Your task to perform on an android device: toggle translation in the chrome app Image 0: 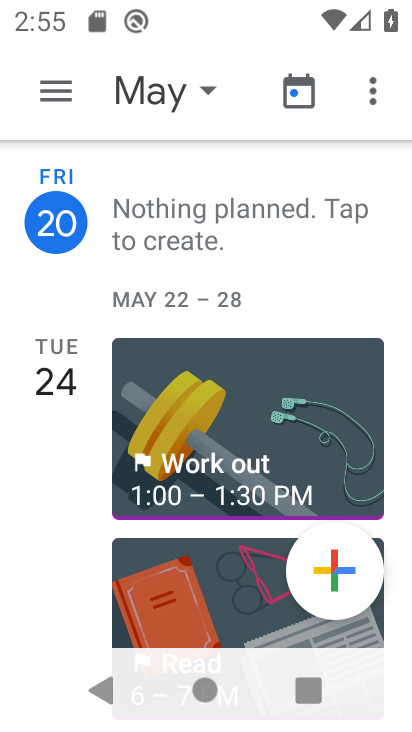
Step 0: press home button
Your task to perform on an android device: toggle translation in the chrome app Image 1: 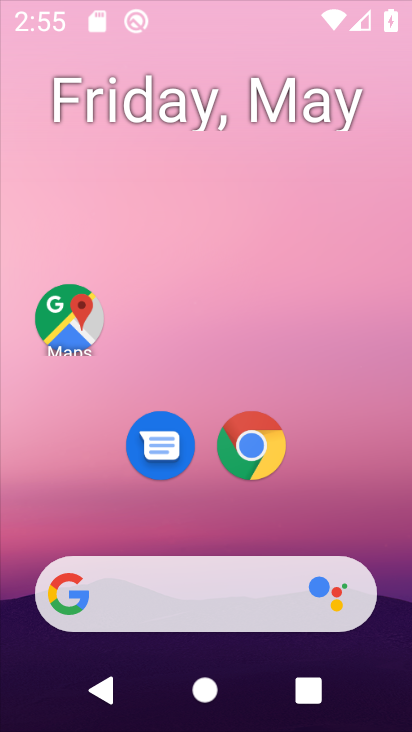
Step 1: drag from (197, 578) to (288, 349)
Your task to perform on an android device: toggle translation in the chrome app Image 2: 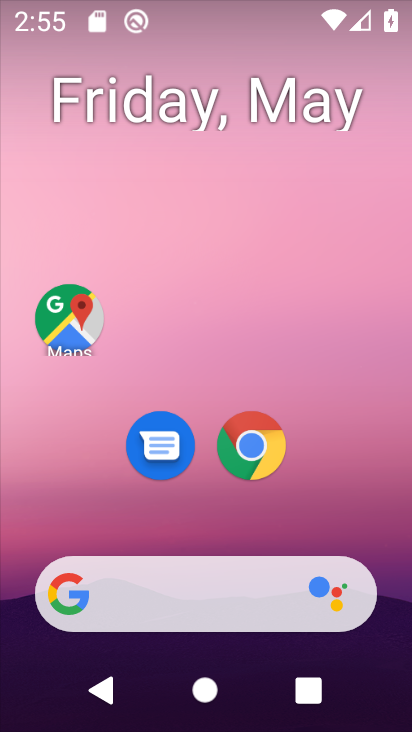
Step 2: click (252, 431)
Your task to perform on an android device: toggle translation in the chrome app Image 3: 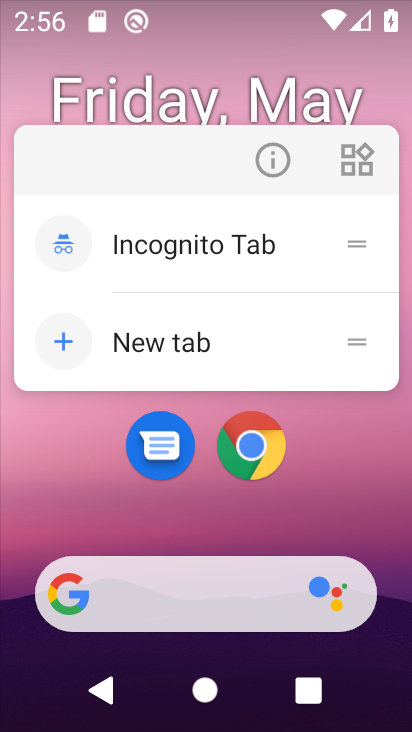
Step 3: click (275, 176)
Your task to perform on an android device: toggle translation in the chrome app Image 4: 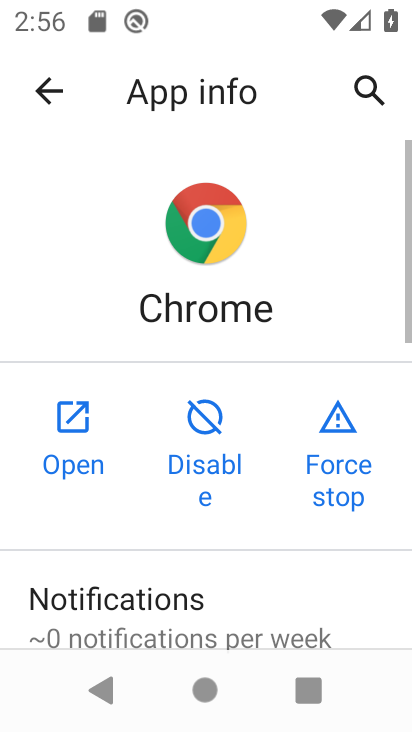
Step 4: click (75, 445)
Your task to perform on an android device: toggle translation in the chrome app Image 5: 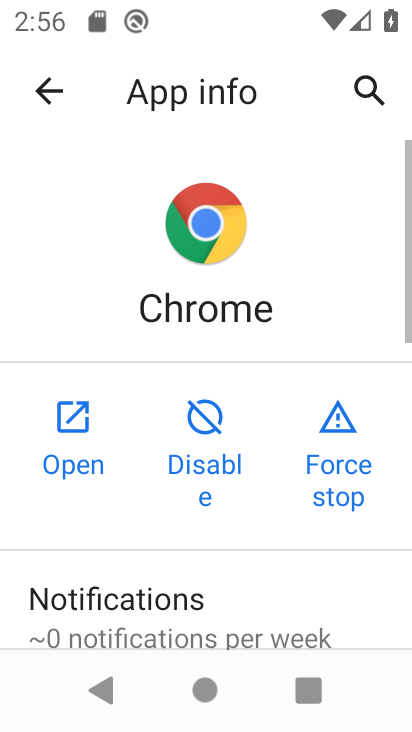
Step 5: click (75, 445)
Your task to perform on an android device: toggle translation in the chrome app Image 6: 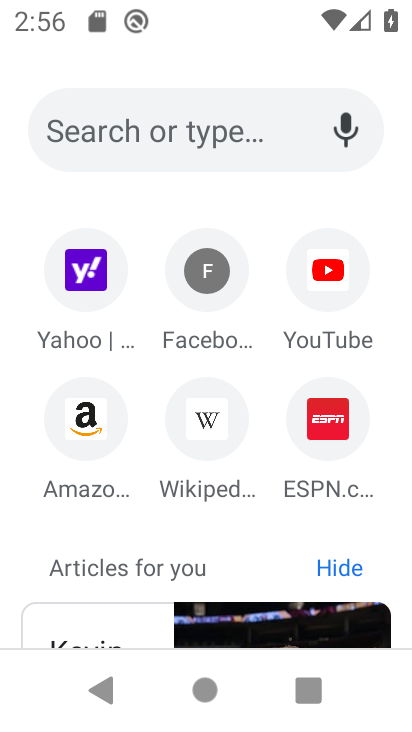
Step 6: drag from (245, 486) to (280, 181)
Your task to perform on an android device: toggle translation in the chrome app Image 7: 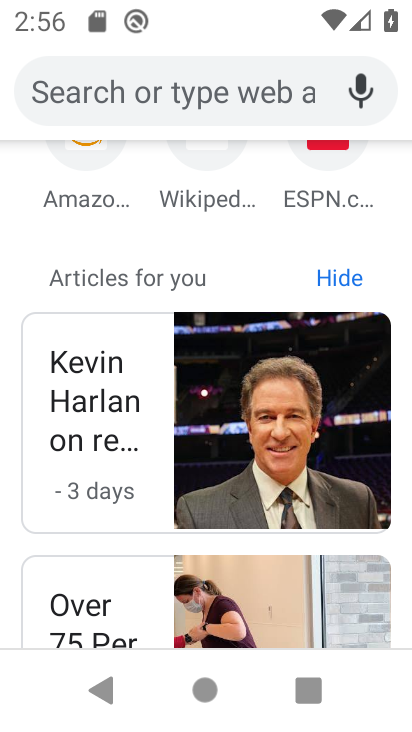
Step 7: drag from (261, 221) to (258, 680)
Your task to perform on an android device: toggle translation in the chrome app Image 8: 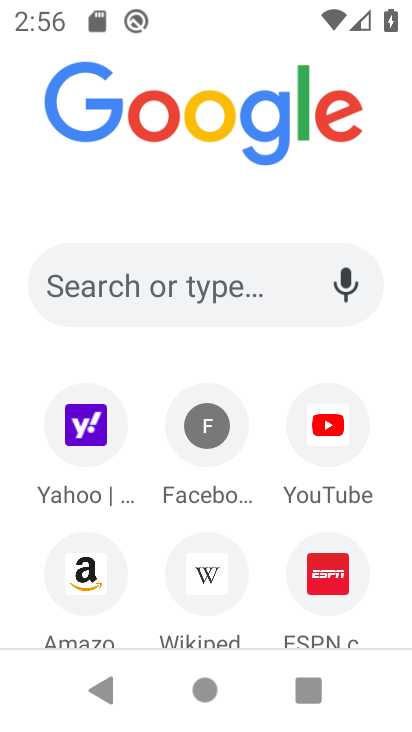
Step 8: drag from (245, 190) to (243, 253)
Your task to perform on an android device: toggle translation in the chrome app Image 9: 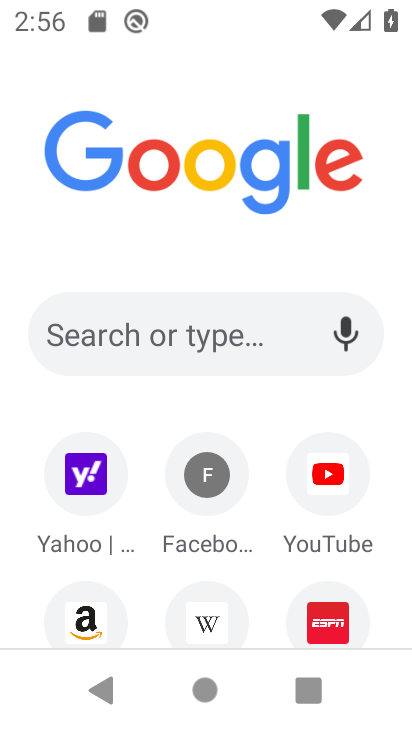
Step 9: click (372, 70)
Your task to perform on an android device: toggle translation in the chrome app Image 10: 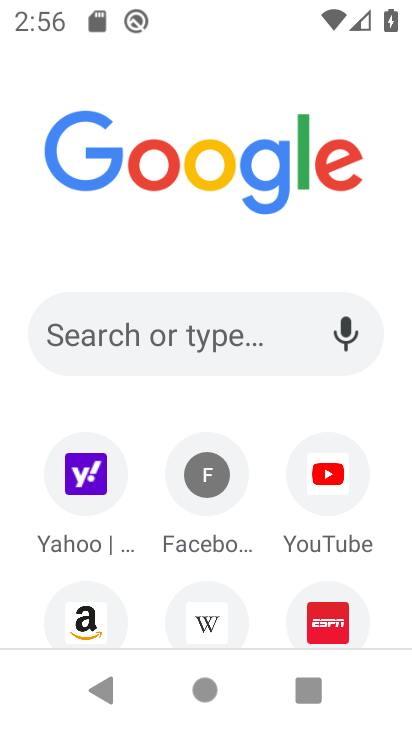
Step 10: click (375, 83)
Your task to perform on an android device: toggle translation in the chrome app Image 11: 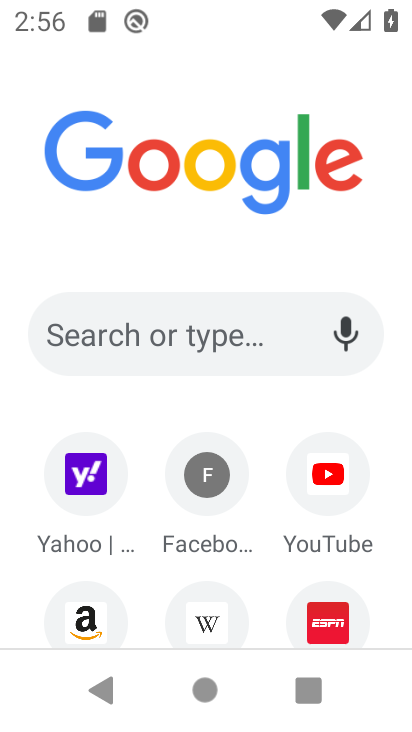
Step 11: drag from (196, 224) to (179, 499)
Your task to perform on an android device: toggle translation in the chrome app Image 12: 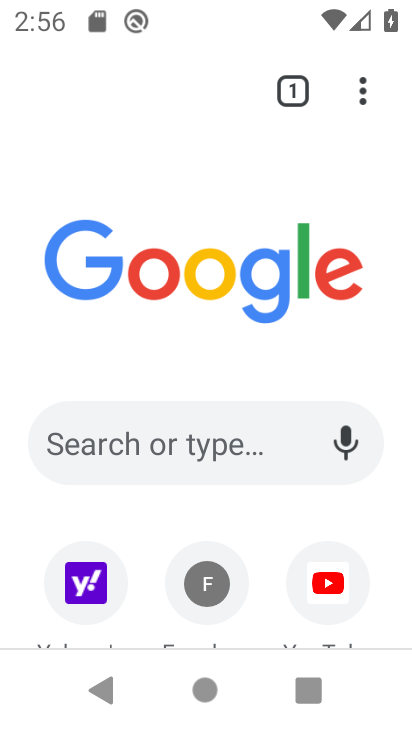
Step 12: click (373, 99)
Your task to perform on an android device: toggle translation in the chrome app Image 13: 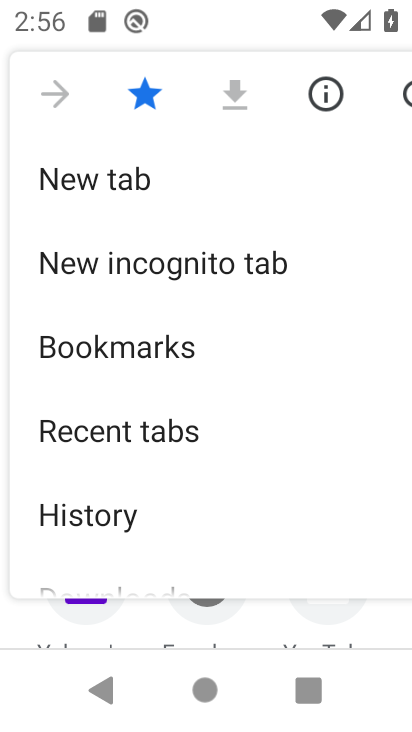
Step 13: drag from (129, 526) to (239, 158)
Your task to perform on an android device: toggle translation in the chrome app Image 14: 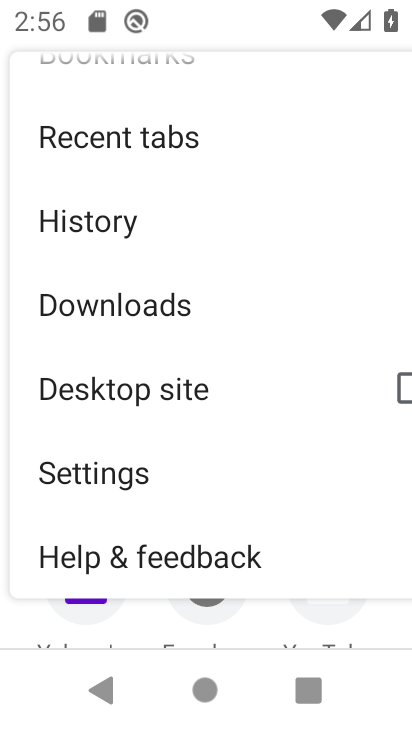
Step 14: click (93, 482)
Your task to perform on an android device: toggle translation in the chrome app Image 15: 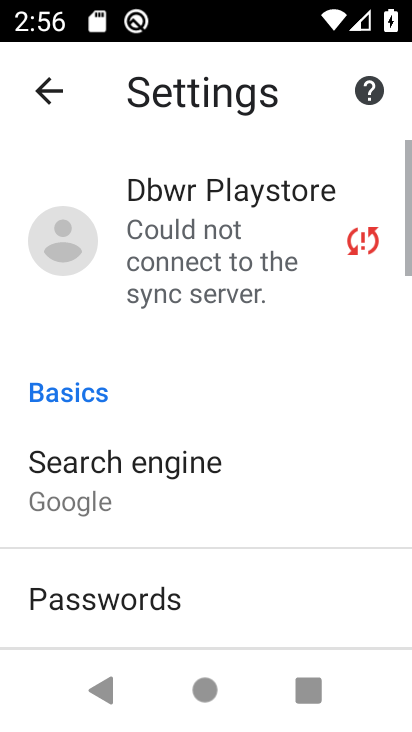
Step 15: drag from (146, 473) to (251, 215)
Your task to perform on an android device: toggle translation in the chrome app Image 16: 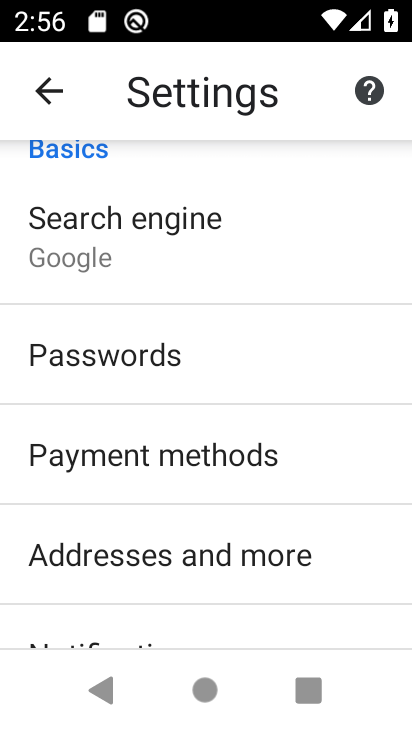
Step 16: drag from (136, 536) to (220, 226)
Your task to perform on an android device: toggle translation in the chrome app Image 17: 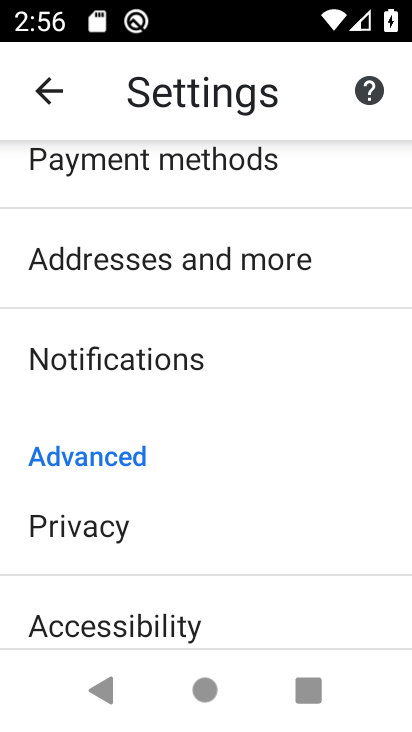
Step 17: drag from (153, 527) to (304, 202)
Your task to perform on an android device: toggle translation in the chrome app Image 18: 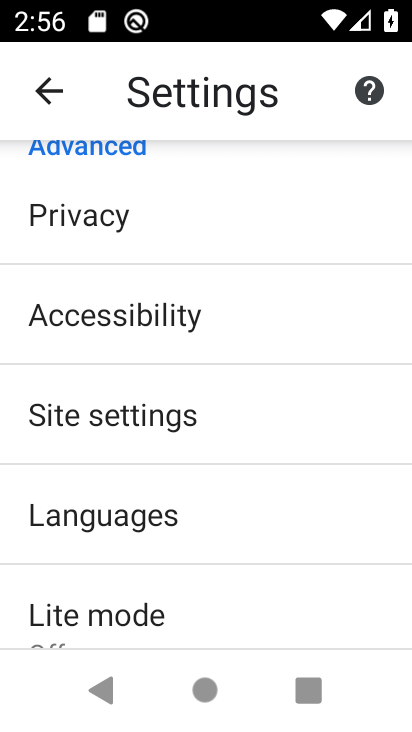
Step 18: drag from (138, 563) to (220, 359)
Your task to perform on an android device: toggle translation in the chrome app Image 19: 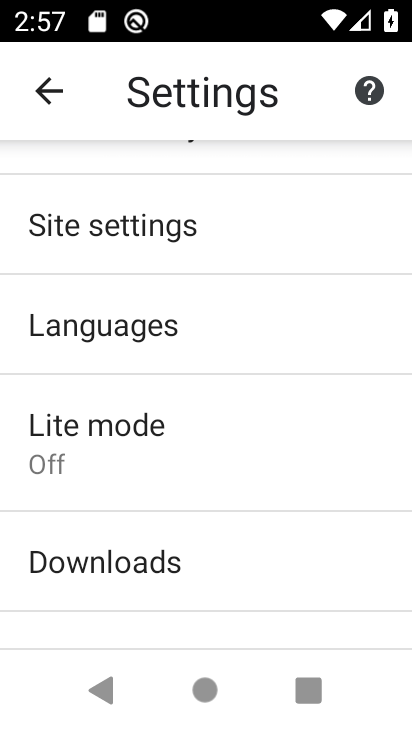
Step 19: drag from (171, 558) to (274, 278)
Your task to perform on an android device: toggle translation in the chrome app Image 20: 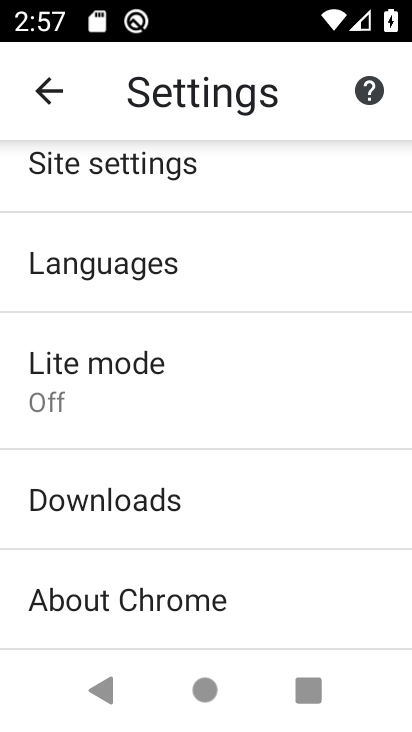
Step 20: drag from (213, 535) to (283, 298)
Your task to perform on an android device: toggle translation in the chrome app Image 21: 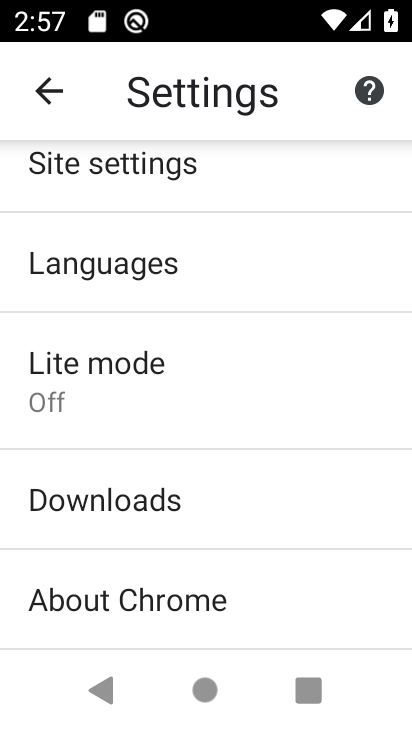
Step 21: click (197, 286)
Your task to perform on an android device: toggle translation in the chrome app Image 22: 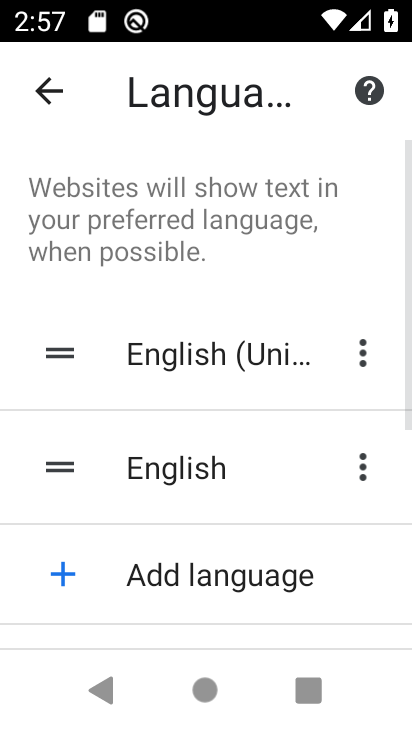
Step 22: drag from (276, 578) to (407, 147)
Your task to perform on an android device: toggle translation in the chrome app Image 23: 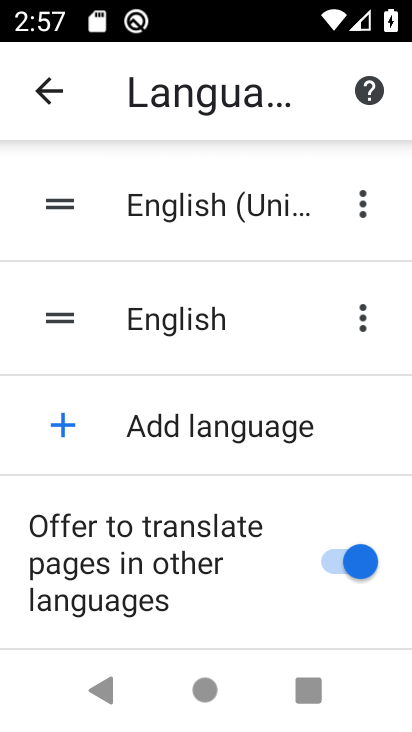
Step 23: click (326, 563)
Your task to perform on an android device: toggle translation in the chrome app Image 24: 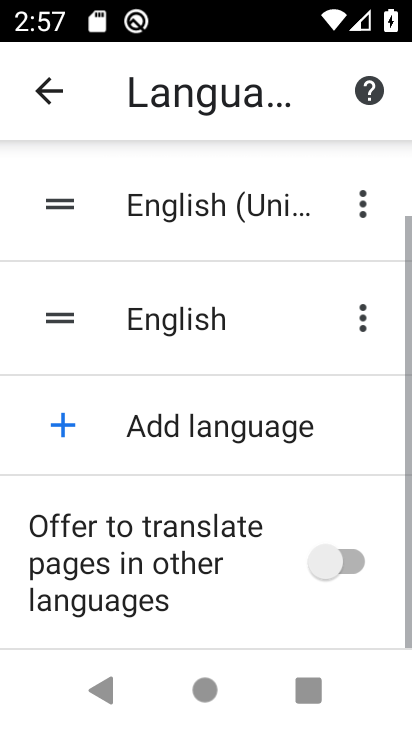
Step 24: task complete